Your task to perform on an android device: change notification settings in the gmail app Image 0: 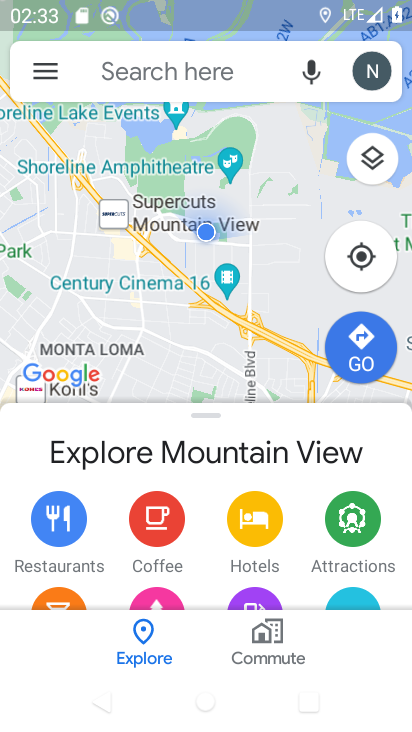
Step 0: press home button
Your task to perform on an android device: change notification settings in the gmail app Image 1: 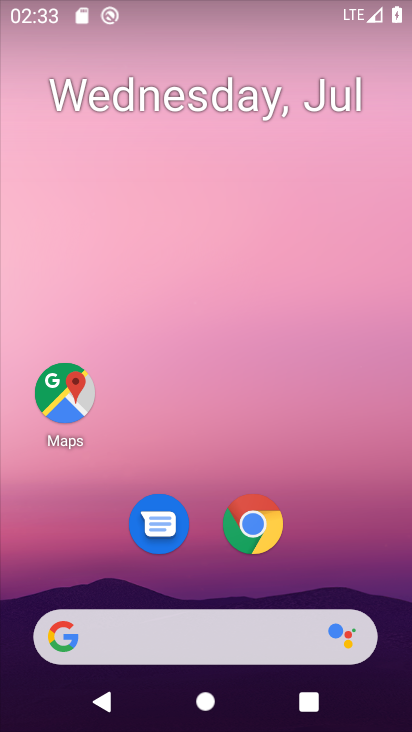
Step 1: drag from (318, 521) to (295, 63)
Your task to perform on an android device: change notification settings in the gmail app Image 2: 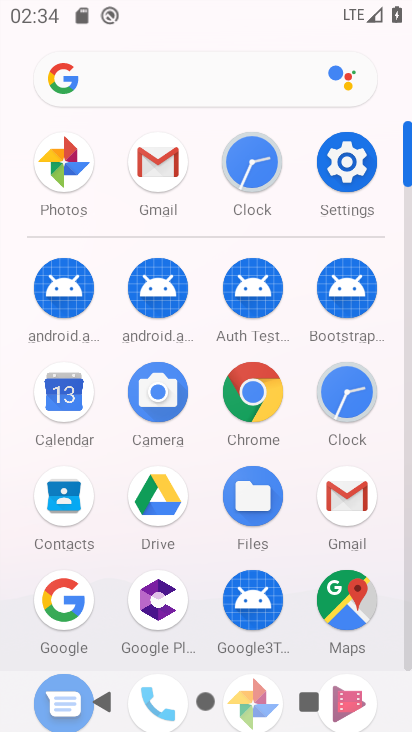
Step 2: click (149, 166)
Your task to perform on an android device: change notification settings in the gmail app Image 3: 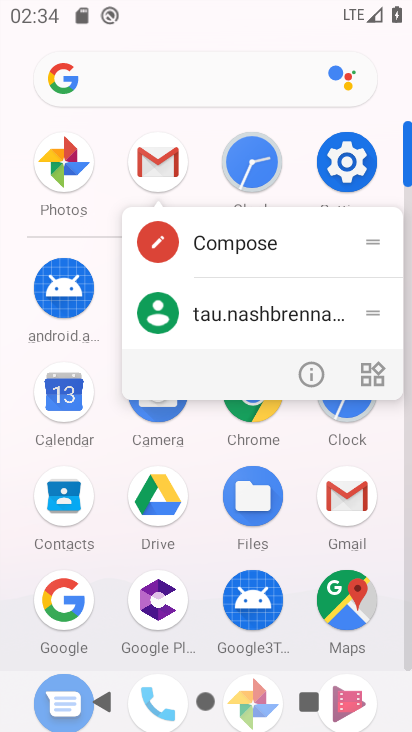
Step 3: click (153, 157)
Your task to perform on an android device: change notification settings in the gmail app Image 4: 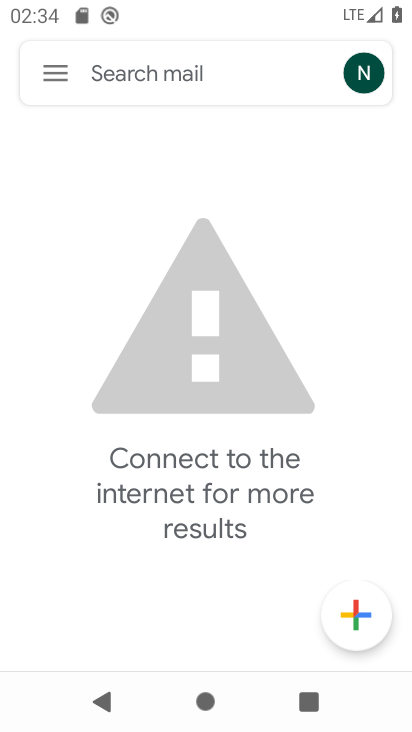
Step 4: click (62, 74)
Your task to perform on an android device: change notification settings in the gmail app Image 5: 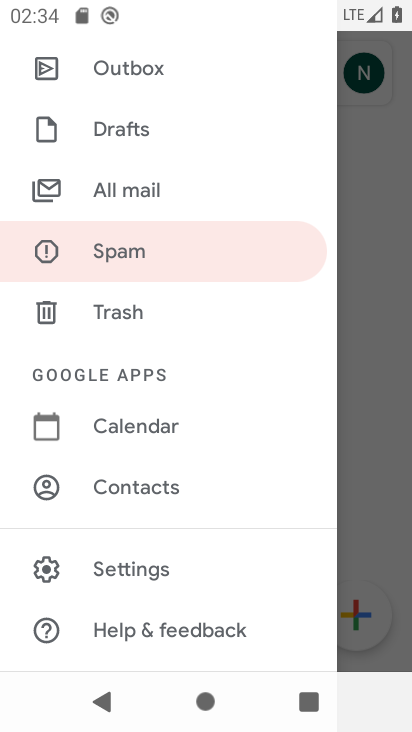
Step 5: click (164, 563)
Your task to perform on an android device: change notification settings in the gmail app Image 6: 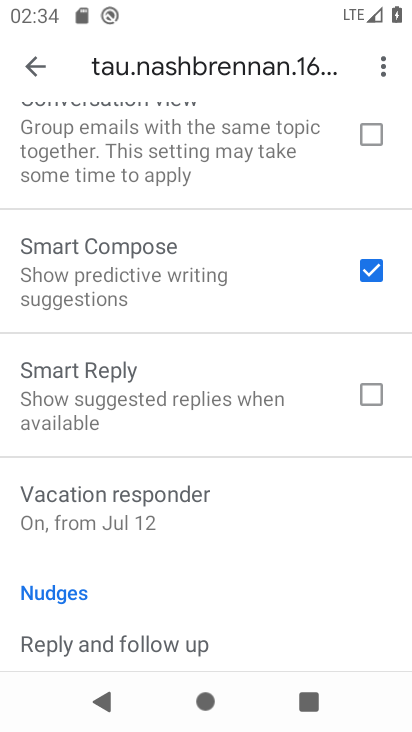
Step 6: drag from (238, 210) to (297, 583)
Your task to perform on an android device: change notification settings in the gmail app Image 7: 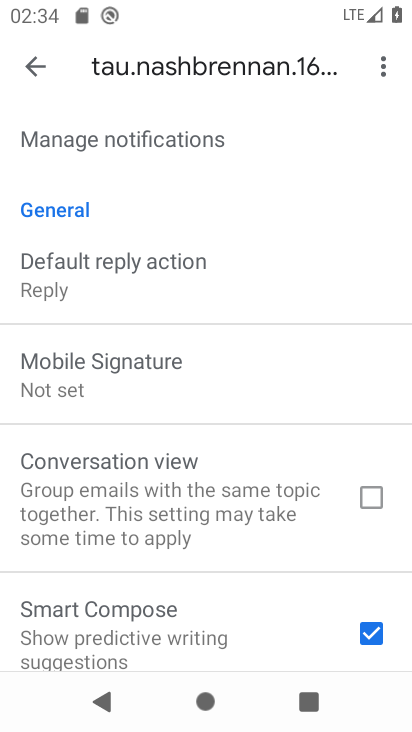
Step 7: click (217, 140)
Your task to perform on an android device: change notification settings in the gmail app Image 8: 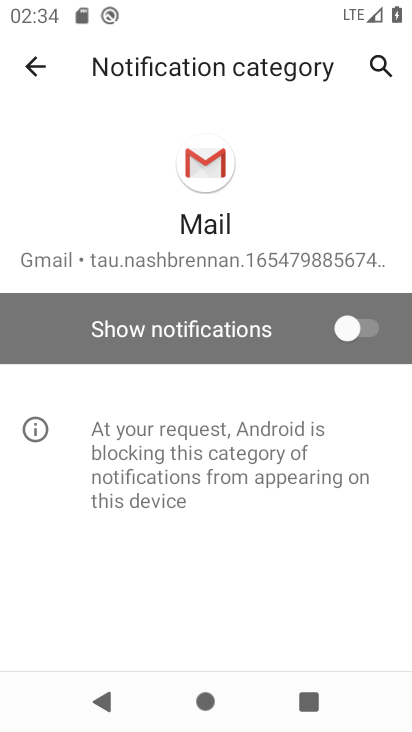
Step 8: click (363, 331)
Your task to perform on an android device: change notification settings in the gmail app Image 9: 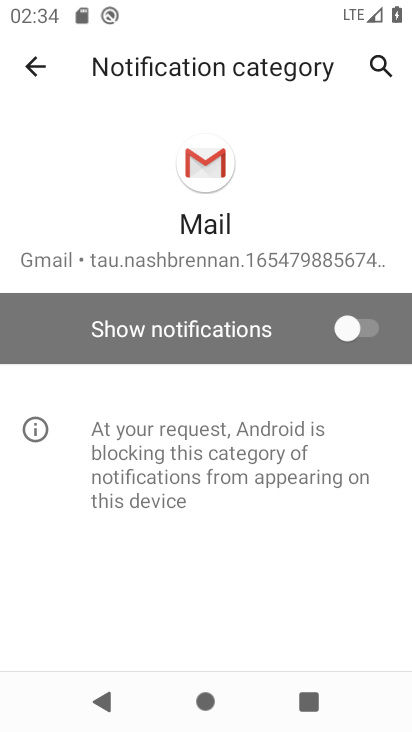
Step 9: click (363, 331)
Your task to perform on an android device: change notification settings in the gmail app Image 10: 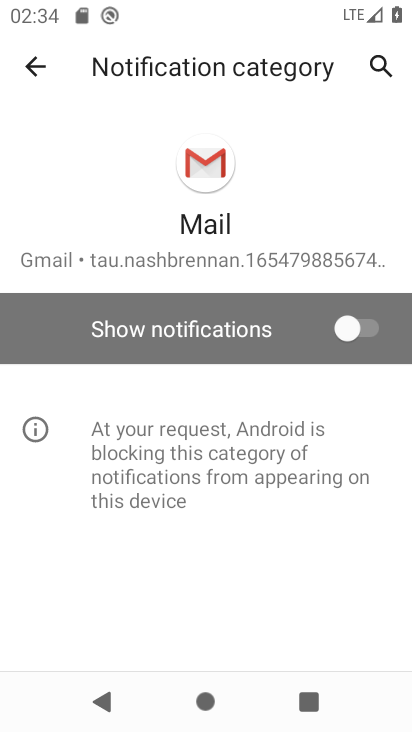
Step 10: click (352, 327)
Your task to perform on an android device: change notification settings in the gmail app Image 11: 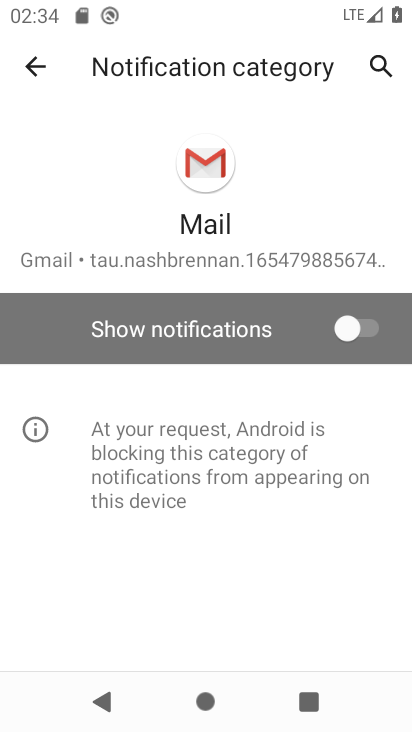
Step 11: click (41, 66)
Your task to perform on an android device: change notification settings in the gmail app Image 12: 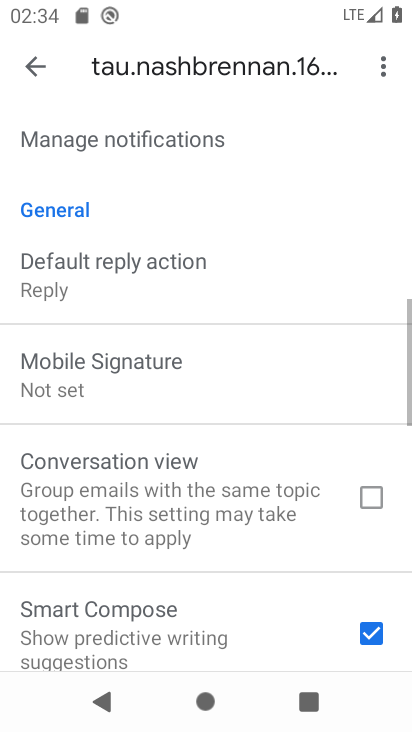
Step 12: drag from (212, 207) to (226, 582)
Your task to perform on an android device: change notification settings in the gmail app Image 13: 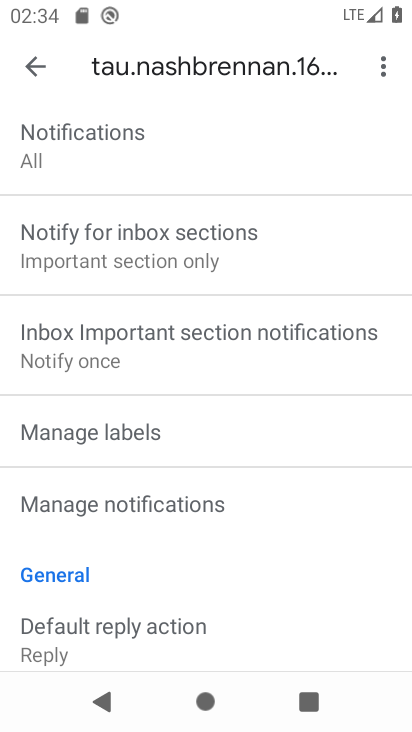
Step 13: click (37, 63)
Your task to perform on an android device: change notification settings in the gmail app Image 14: 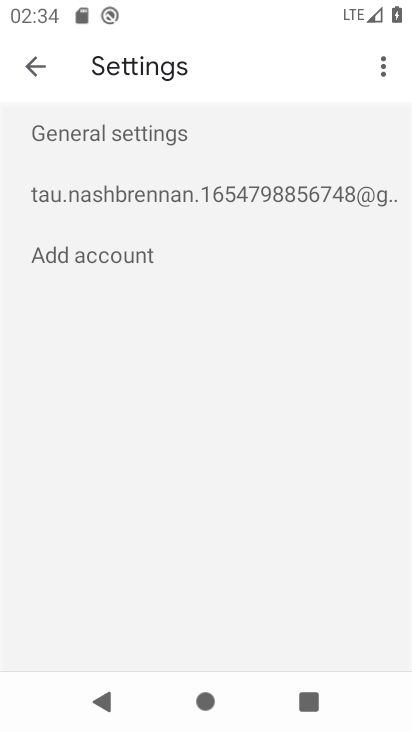
Step 14: drag from (189, 236) to (230, 427)
Your task to perform on an android device: change notification settings in the gmail app Image 15: 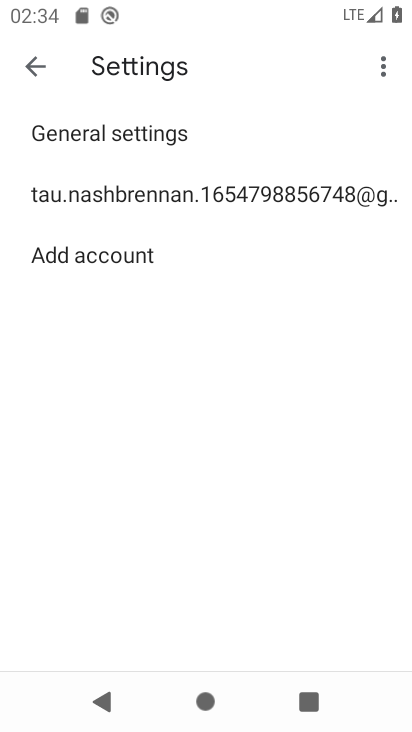
Step 15: click (145, 139)
Your task to perform on an android device: change notification settings in the gmail app Image 16: 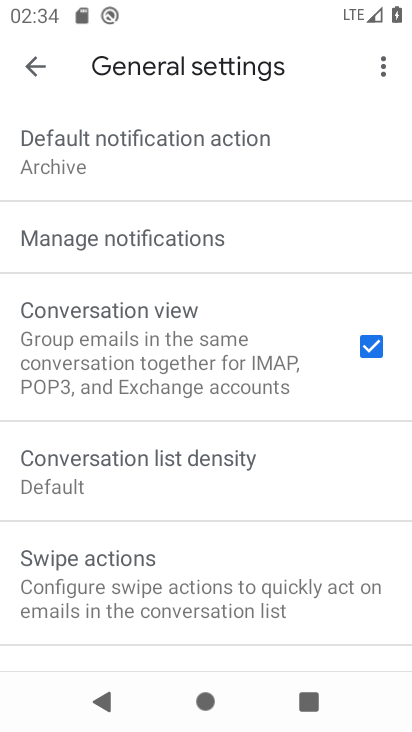
Step 16: click (220, 236)
Your task to perform on an android device: change notification settings in the gmail app Image 17: 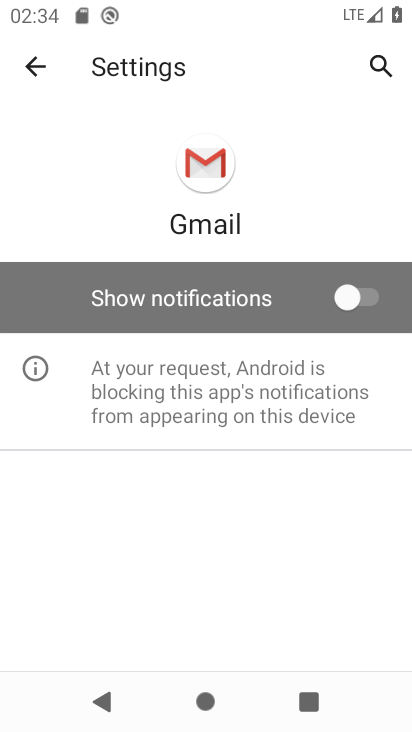
Step 17: click (355, 298)
Your task to perform on an android device: change notification settings in the gmail app Image 18: 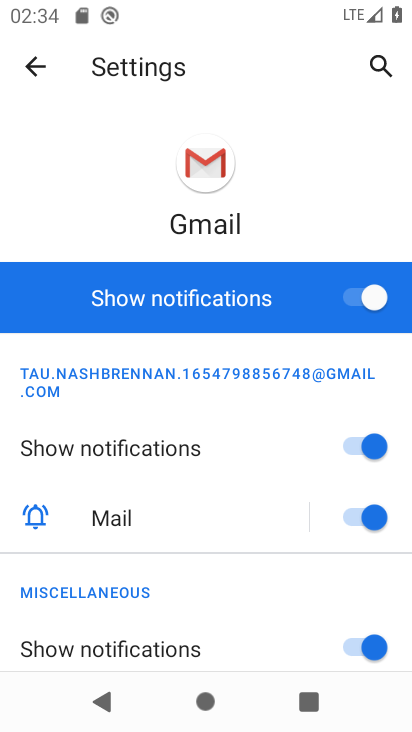
Step 18: task complete